Your task to perform on an android device: Search for bose soundlink on walmart.com, select the first entry, and add it to the cart. Image 0: 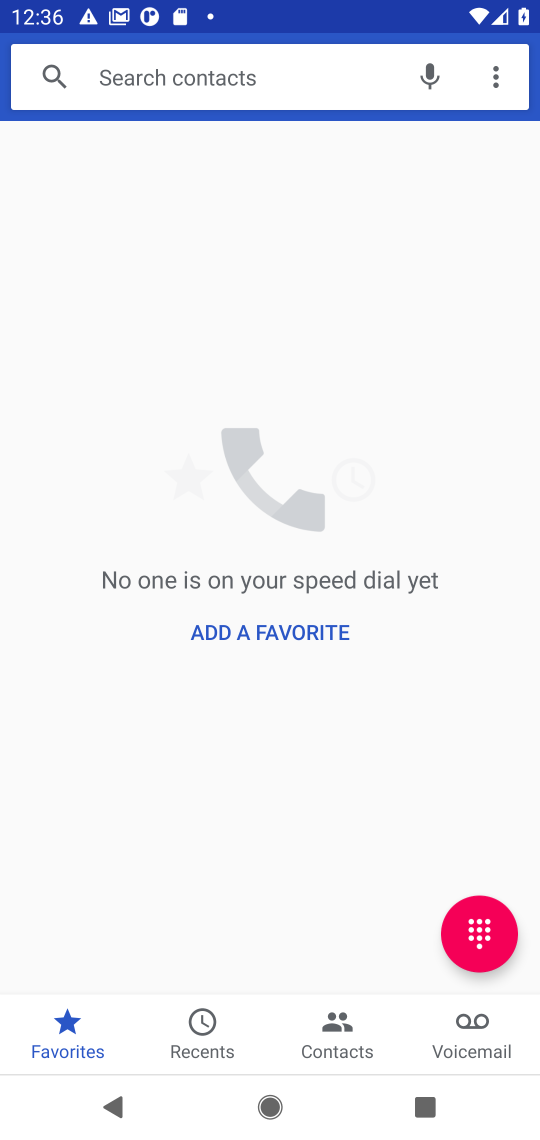
Step 0: press home button
Your task to perform on an android device: Search for bose soundlink on walmart.com, select the first entry, and add it to the cart. Image 1: 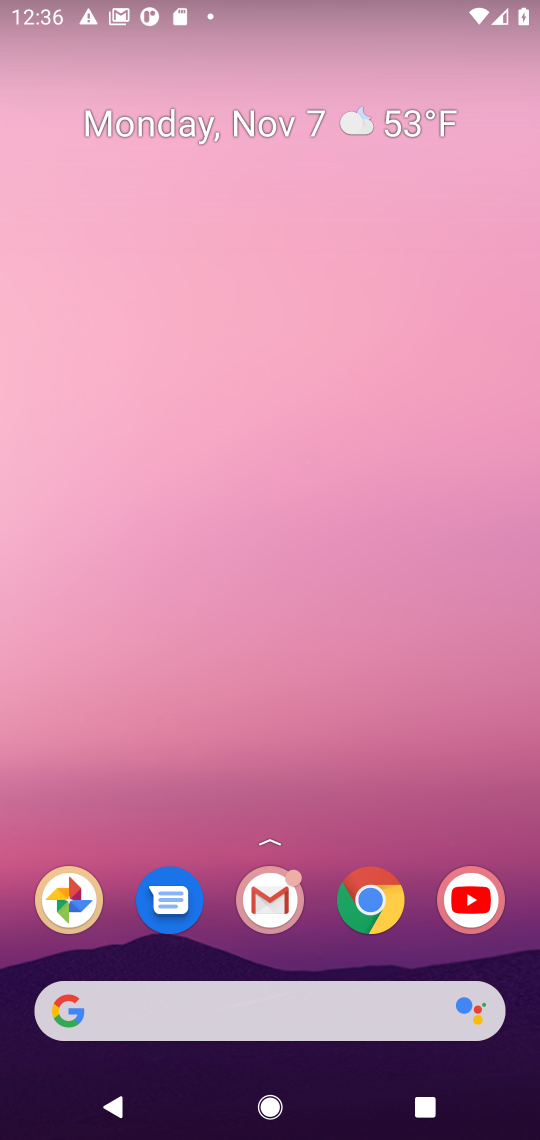
Step 1: click (190, 995)
Your task to perform on an android device: Search for bose soundlink on walmart.com, select the first entry, and add it to the cart. Image 2: 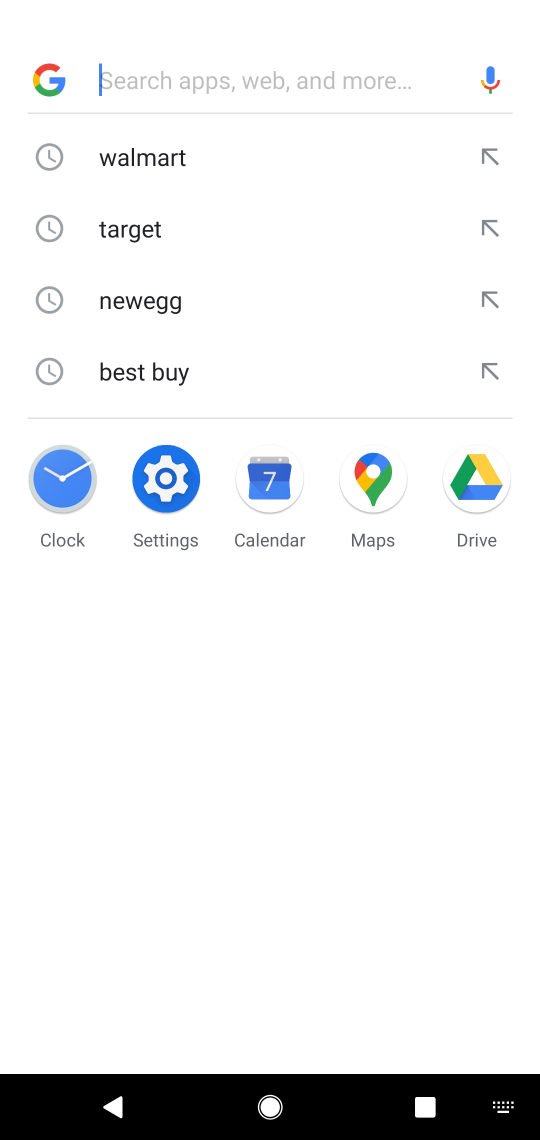
Step 2: click (201, 153)
Your task to perform on an android device: Search for bose soundlink on walmart.com, select the first entry, and add it to the cart. Image 3: 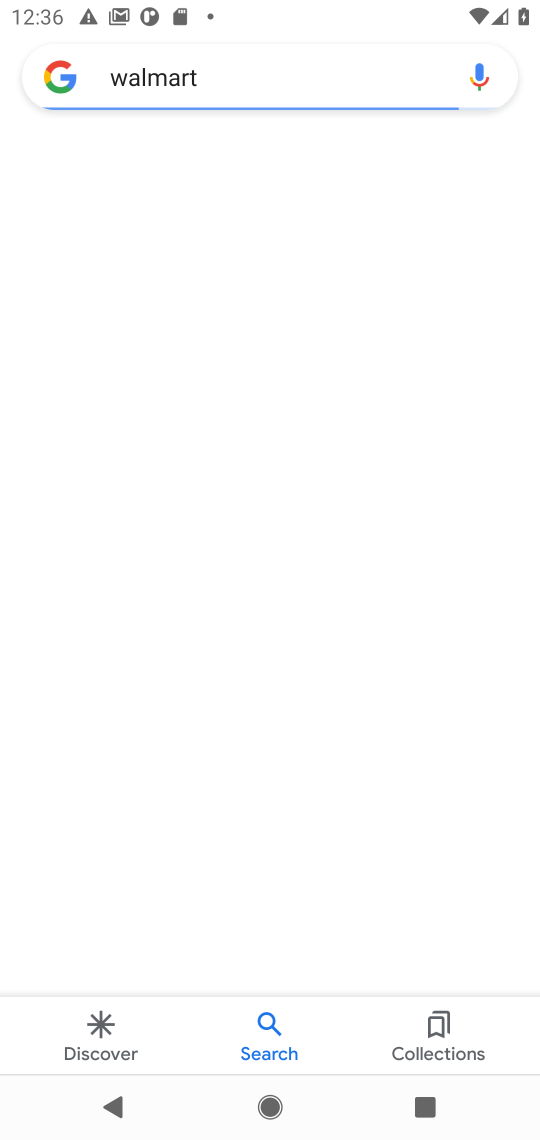
Step 3: task complete